Your task to perform on an android device: remove spam from my inbox in the gmail app Image 0: 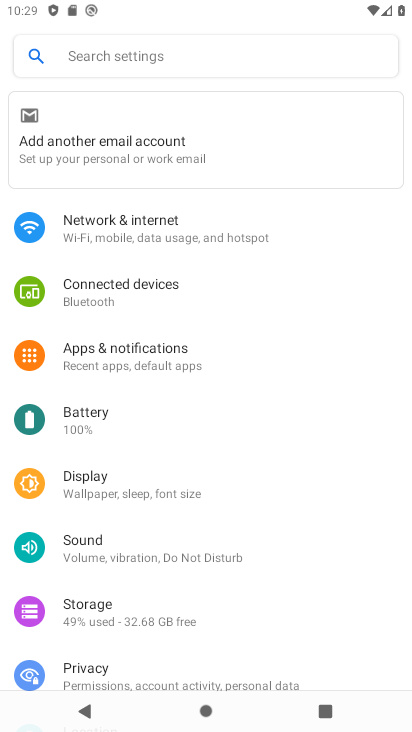
Step 0: press home button
Your task to perform on an android device: remove spam from my inbox in the gmail app Image 1: 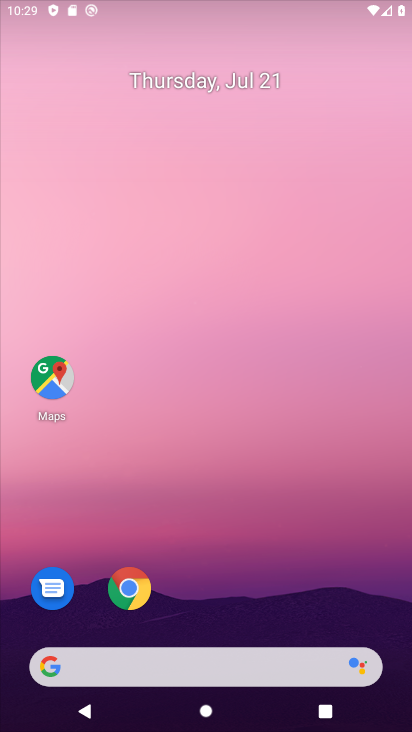
Step 1: drag from (315, 625) to (277, 0)
Your task to perform on an android device: remove spam from my inbox in the gmail app Image 2: 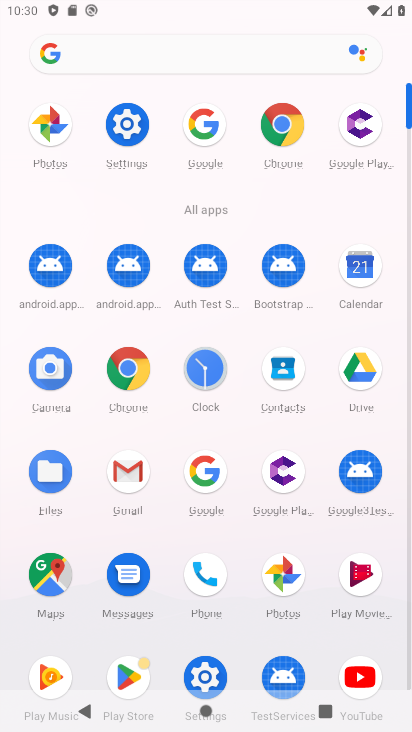
Step 2: click (123, 476)
Your task to perform on an android device: remove spam from my inbox in the gmail app Image 3: 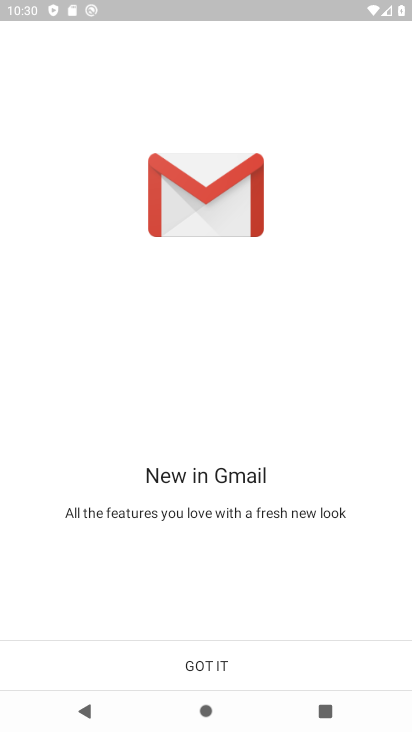
Step 3: click (225, 662)
Your task to perform on an android device: remove spam from my inbox in the gmail app Image 4: 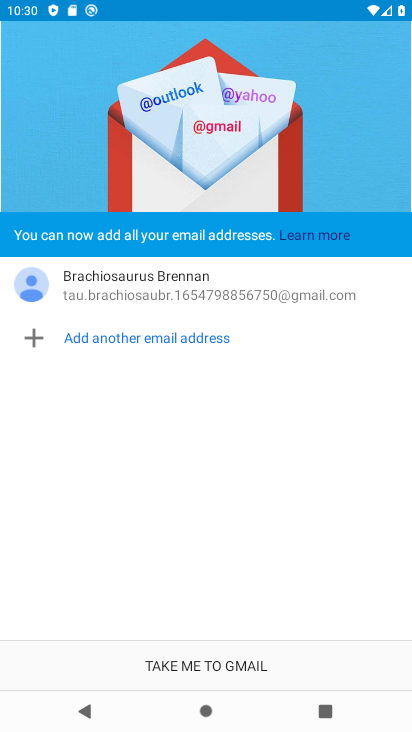
Step 4: click (236, 666)
Your task to perform on an android device: remove spam from my inbox in the gmail app Image 5: 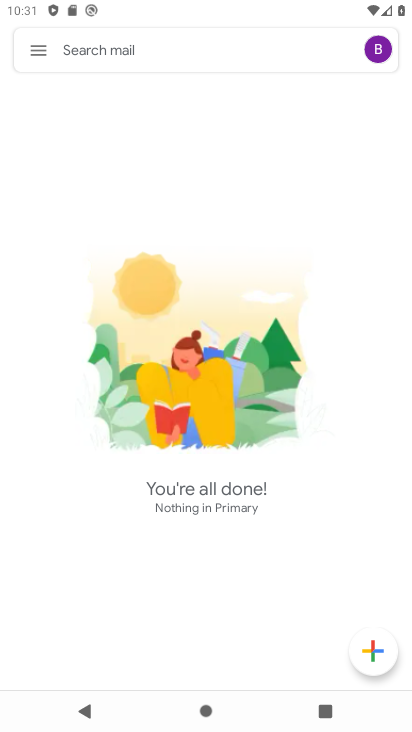
Step 5: click (40, 48)
Your task to perform on an android device: remove spam from my inbox in the gmail app Image 6: 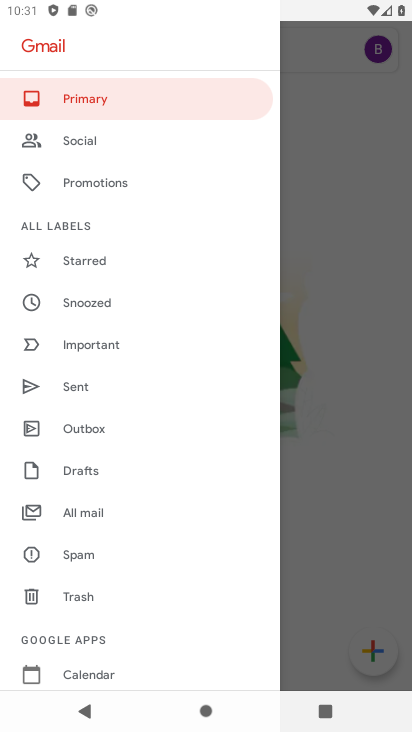
Step 6: click (76, 555)
Your task to perform on an android device: remove spam from my inbox in the gmail app Image 7: 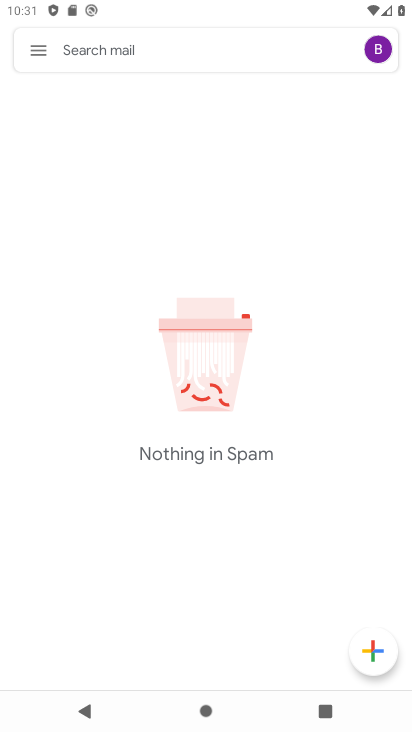
Step 7: task complete